Your task to perform on an android device: open device folders in google photos Image 0: 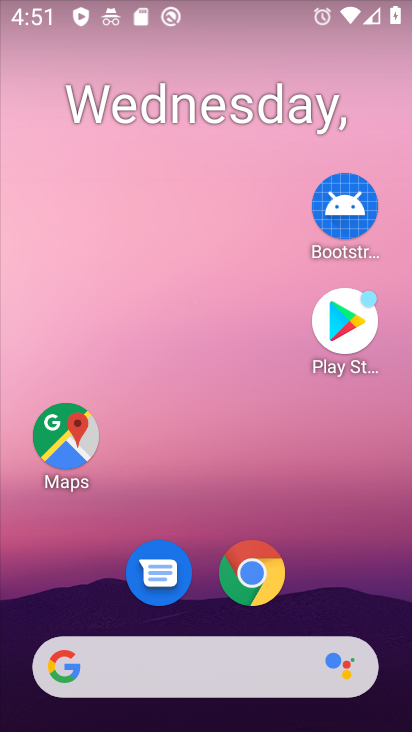
Step 0: drag from (350, 188) to (340, 72)
Your task to perform on an android device: open device folders in google photos Image 1: 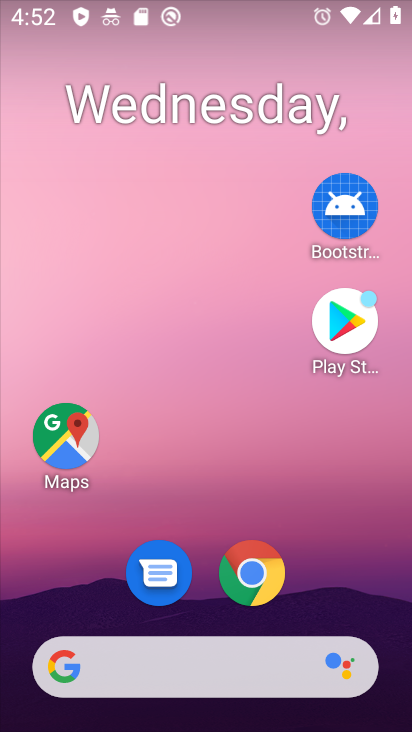
Step 1: drag from (350, 572) to (357, 73)
Your task to perform on an android device: open device folders in google photos Image 2: 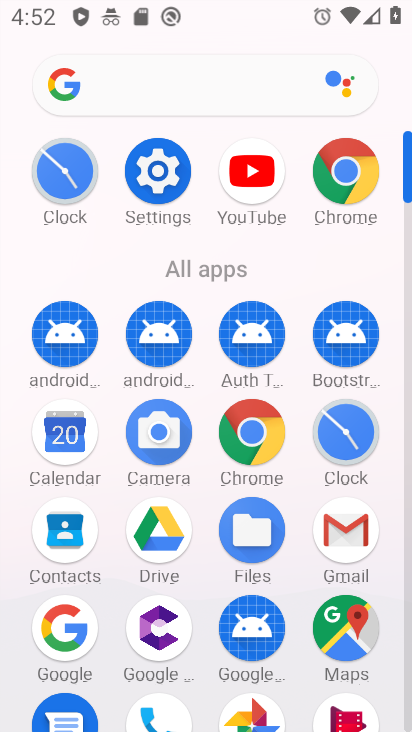
Step 2: drag from (299, 293) to (310, 33)
Your task to perform on an android device: open device folders in google photos Image 3: 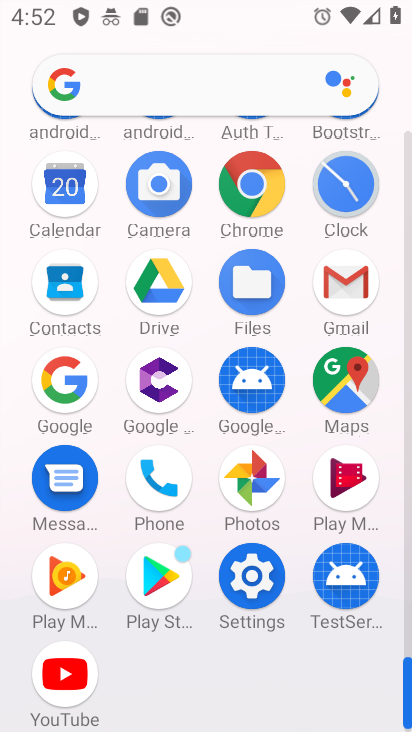
Step 3: click (248, 478)
Your task to perform on an android device: open device folders in google photos Image 4: 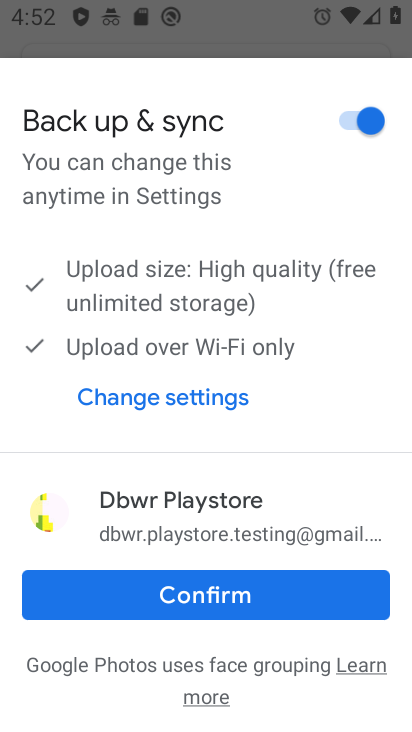
Step 4: click (234, 589)
Your task to perform on an android device: open device folders in google photos Image 5: 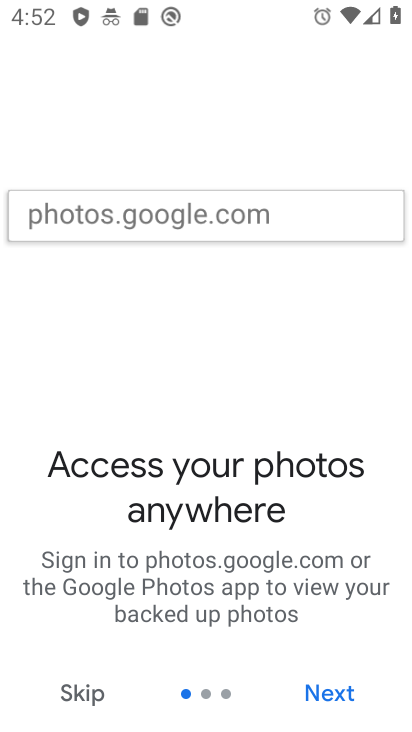
Step 5: click (76, 690)
Your task to perform on an android device: open device folders in google photos Image 6: 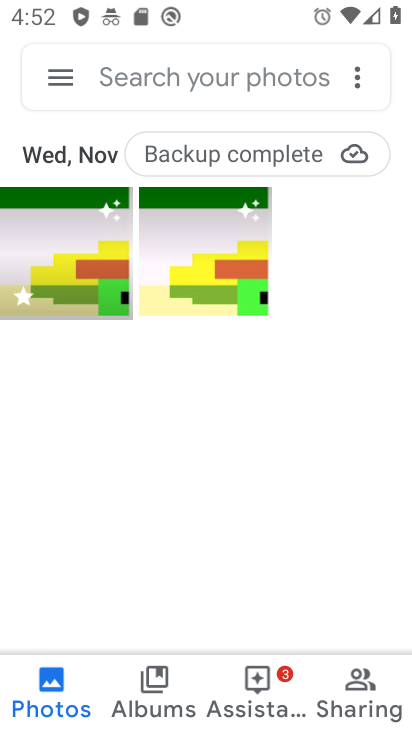
Step 6: click (76, 80)
Your task to perform on an android device: open device folders in google photos Image 7: 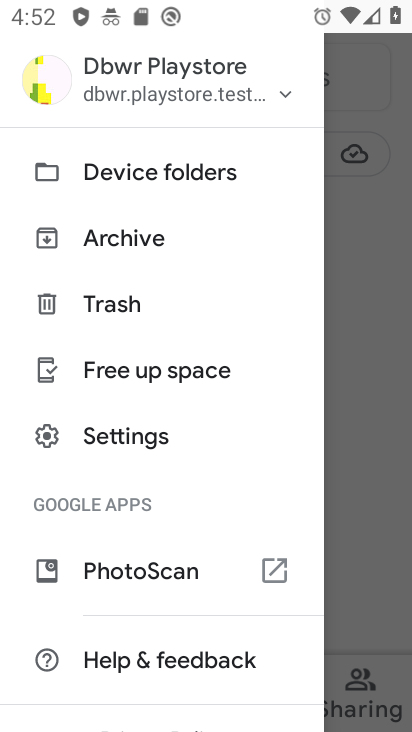
Step 7: click (141, 171)
Your task to perform on an android device: open device folders in google photos Image 8: 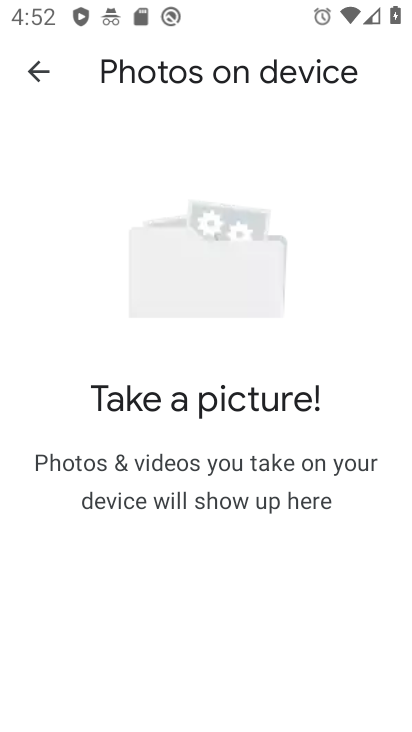
Step 8: task complete